Your task to perform on an android device: Open calendar and show me the first week of next month Image 0: 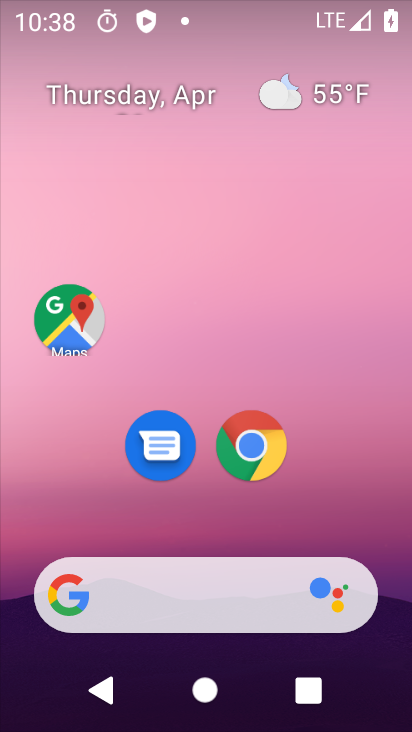
Step 0: drag from (383, 569) to (361, 41)
Your task to perform on an android device: Open calendar and show me the first week of next month Image 1: 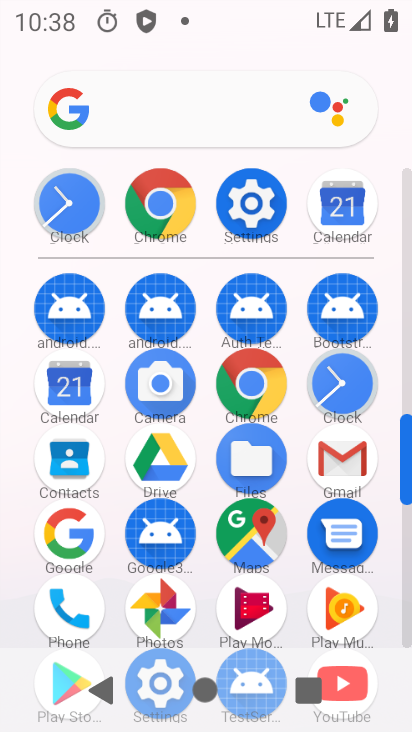
Step 1: click (54, 401)
Your task to perform on an android device: Open calendar and show me the first week of next month Image 2: 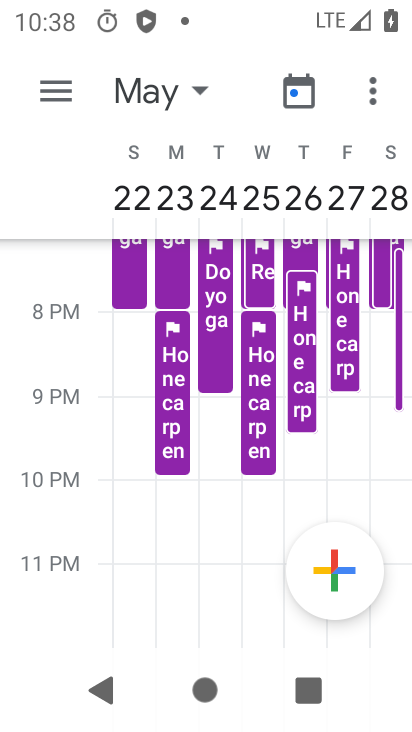
Step 2: task complete